Your task to perform on an android device: turn off airplane mode Image 0: 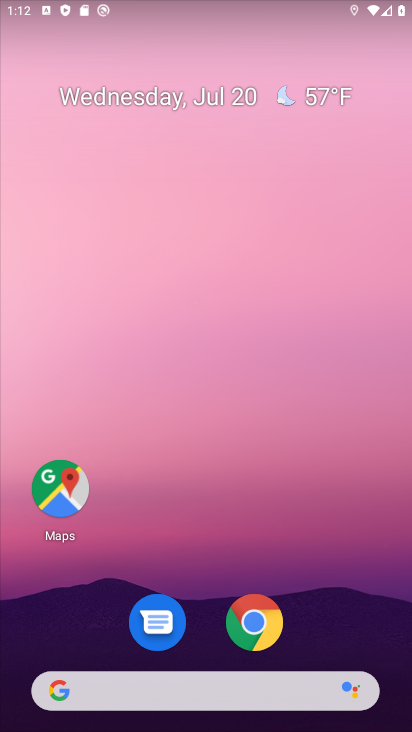
Step 0: drag from (207, 587) to (194, 276)
Your task to perform on an android device: turn off airplane mode Image 1: 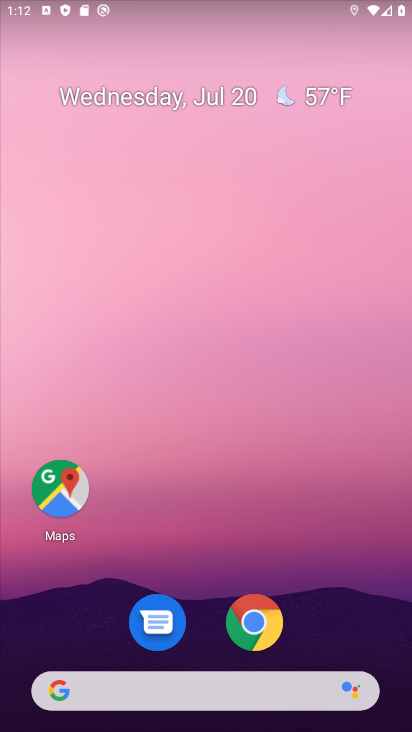
Step 1: drag from (197, 531) to (137, 173)
Your task to perform on an android device: turn off airplane mode Image 2: 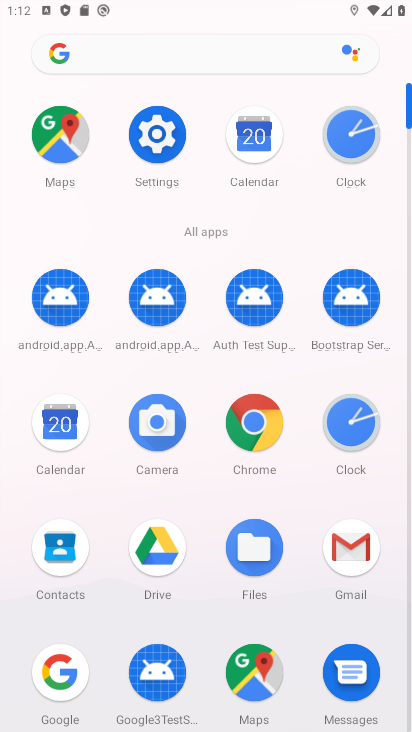
Step 2: click (150, 161)
Your task to perform on an android device: turn off airplane mode Image 3: 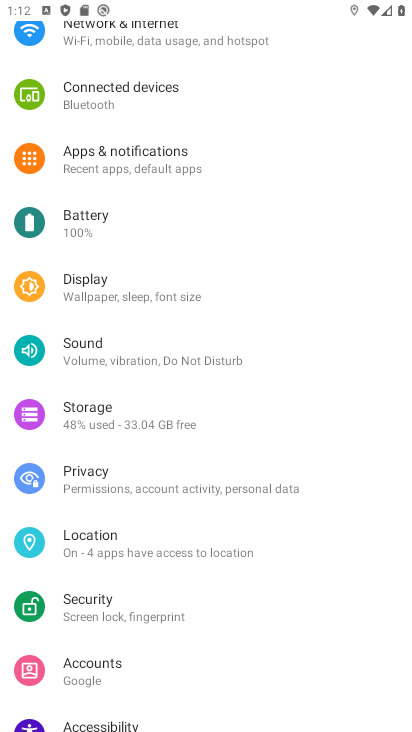
Step 3: drag from (169, 144) to (183, 384)
Your task to perform on an android device: turn off airplane mode Image 4: 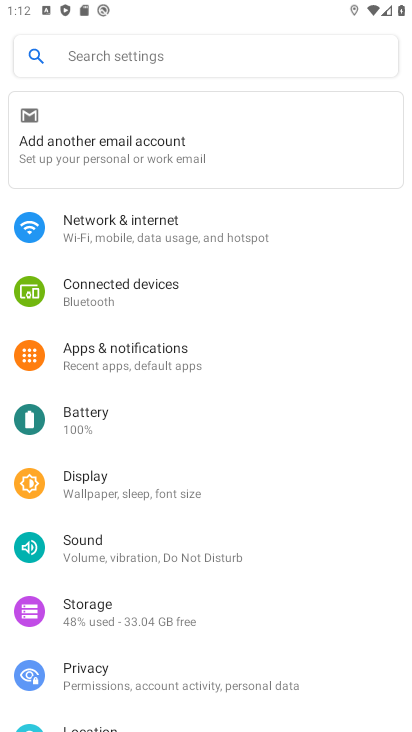
Step 4: click (142, 212)
Your task to perform on an android device: turn off airplane mode Image 5: 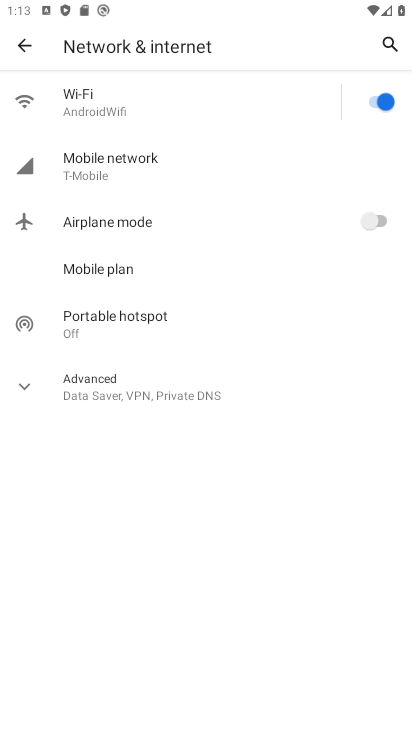
Step 5: task complete